Your task to perform on an android device: turn off priority inbox in the gmail app Image 0: 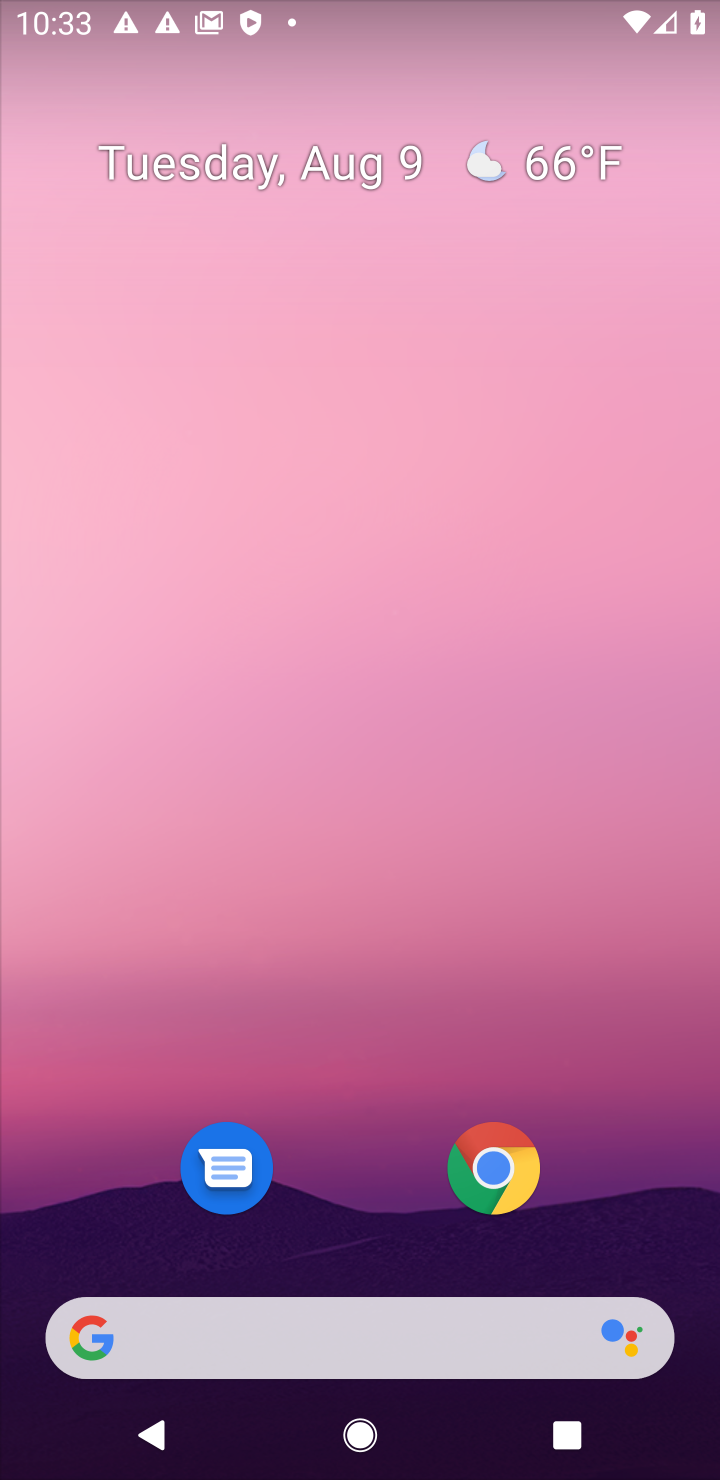
Step 0: drag from (332, 1182) to (366, 44)
Your task to perform on an android device: turn off priority inbox in the gmail app Image 1: 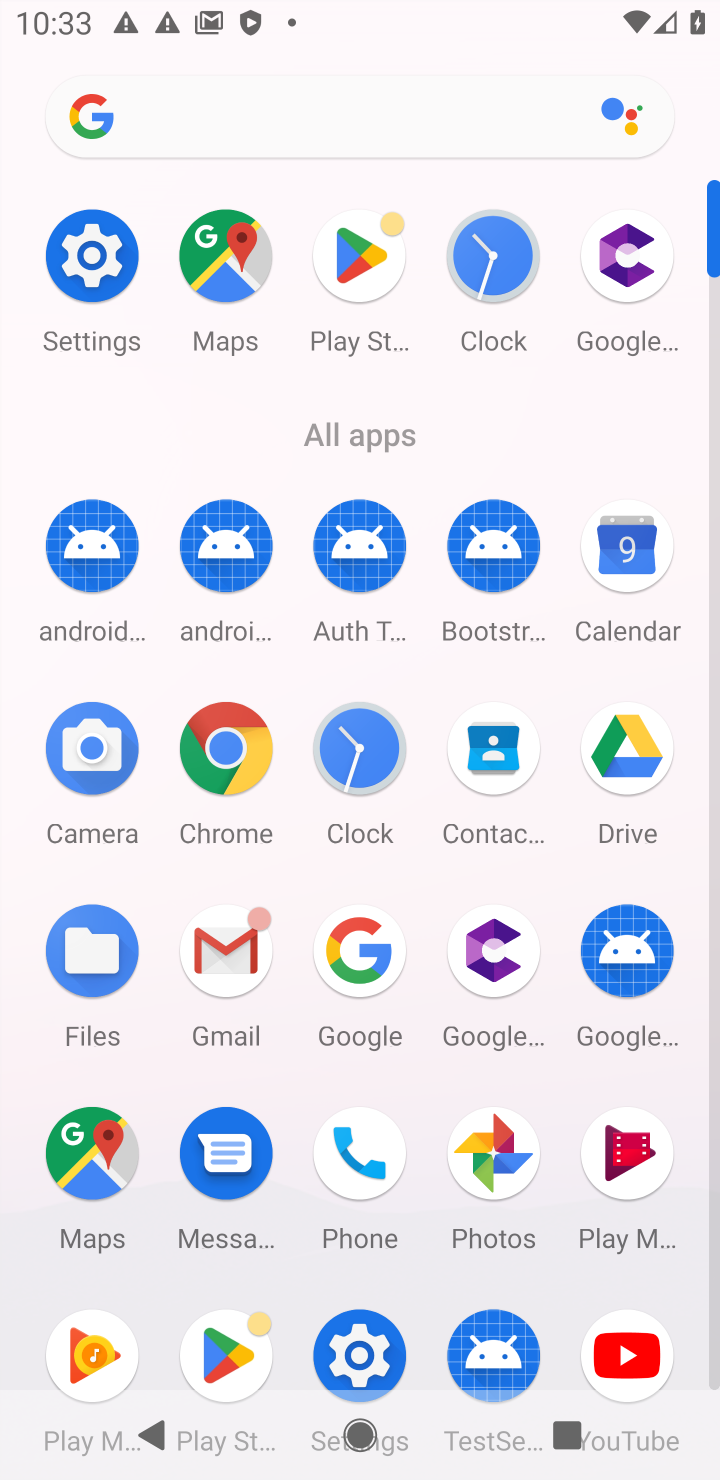
Step 1: click (236, 963)
Your task to perform on an android device: turn off priority inbox in the gmail app Image 2: 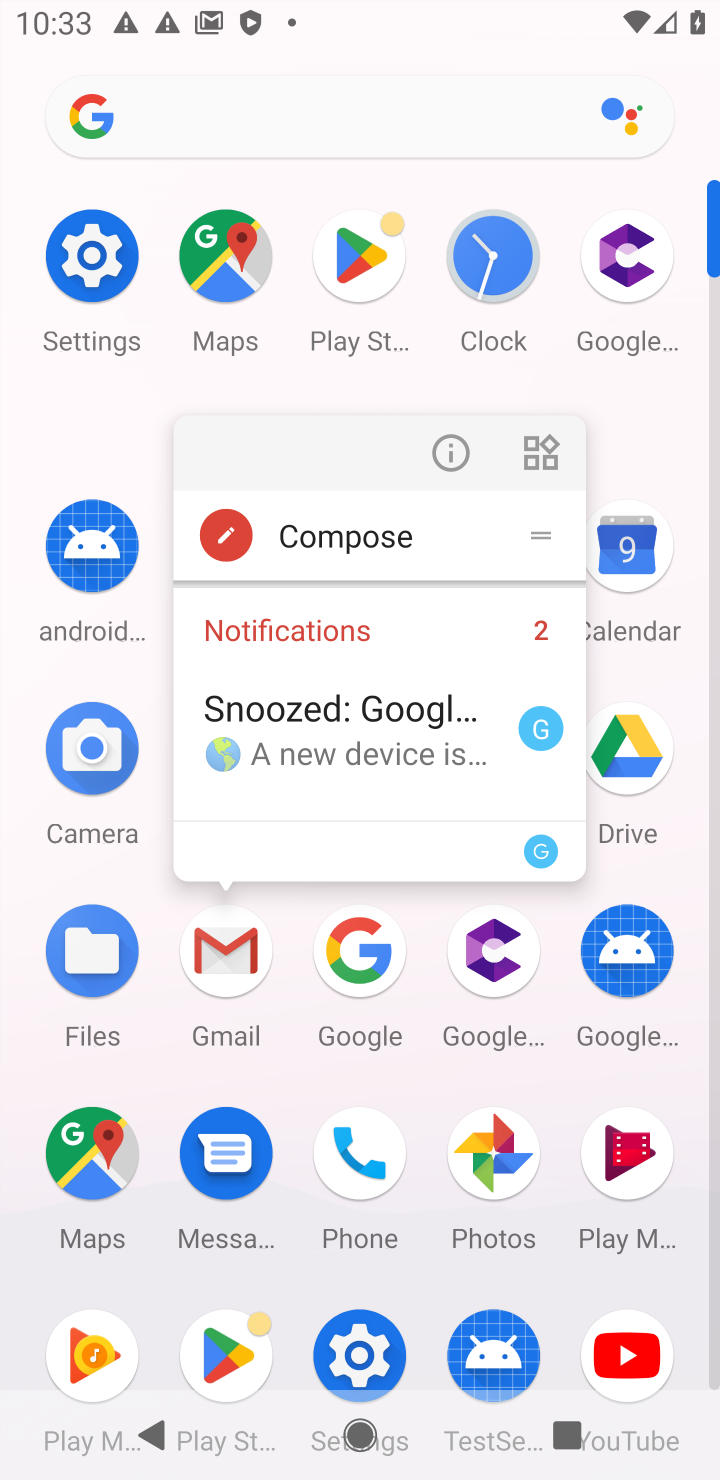
Step 2: click (236, 963)
Your task to perform on an android device: turn off priority inbox in the gmail app Image 3: 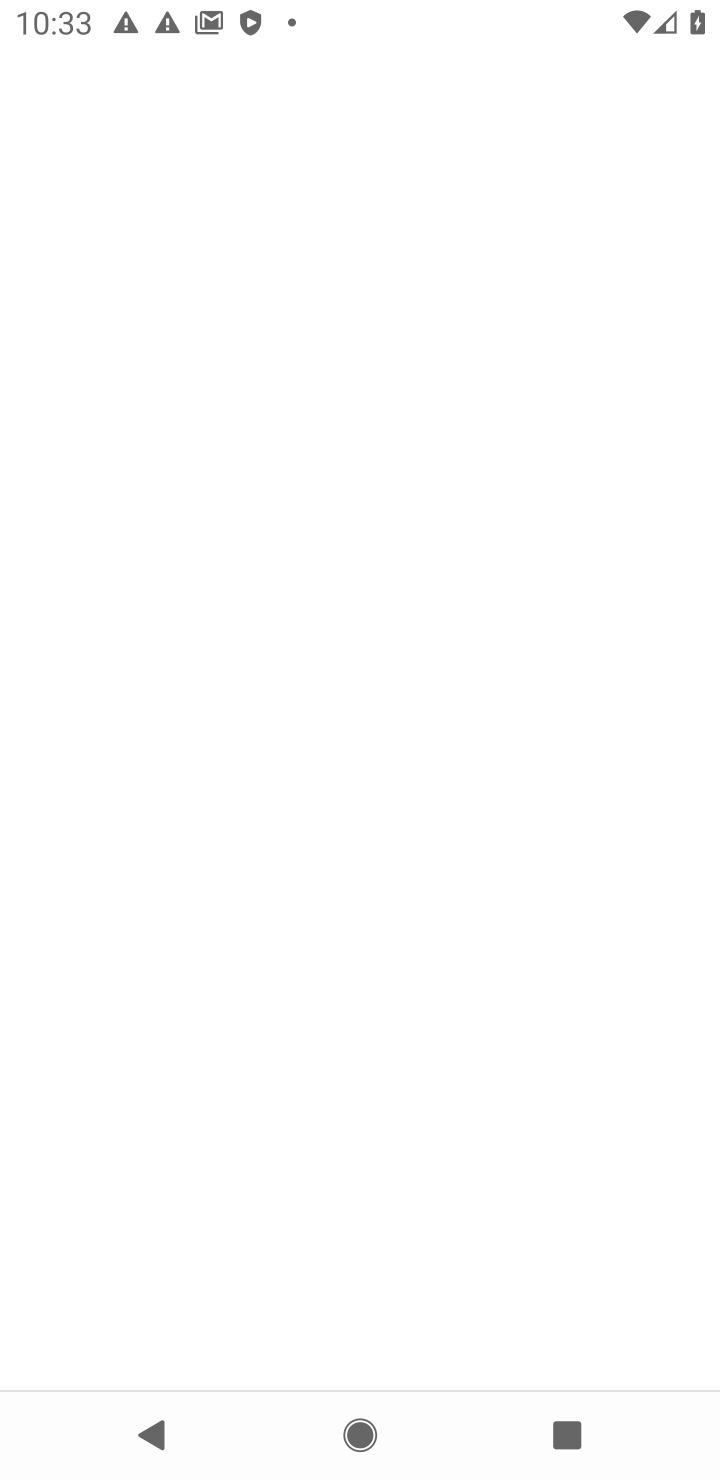
Step 3: click (213, 943)
Your task to perform on an android device: turn off priority inbox in the gmail app Image 4: 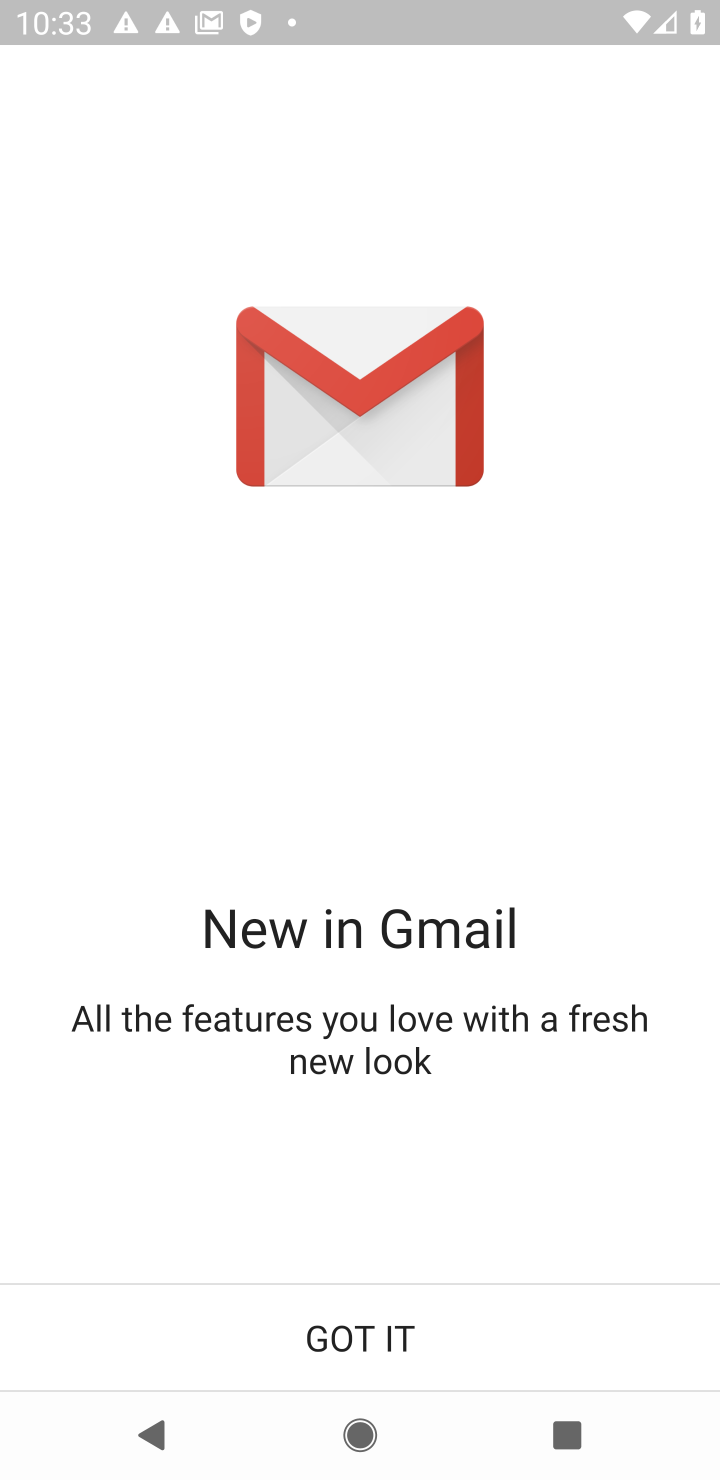
Step 4: click (373, 1337)
Your task to perform on an android device: turn off priority inbox in the gmail app Image 5: 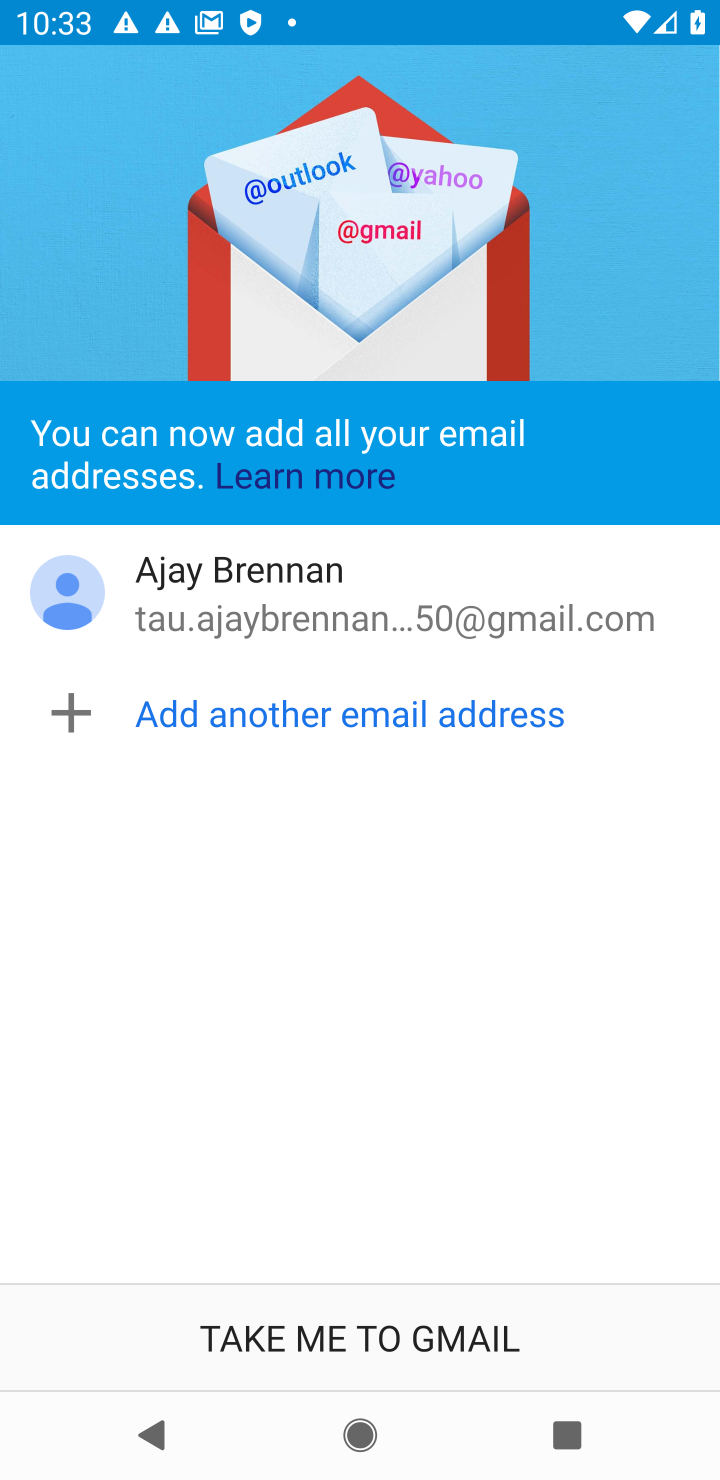
Step 5: click (409, 1320)
Your task to perform on an android device: turn off priority inbox in the gmail app Image 6: 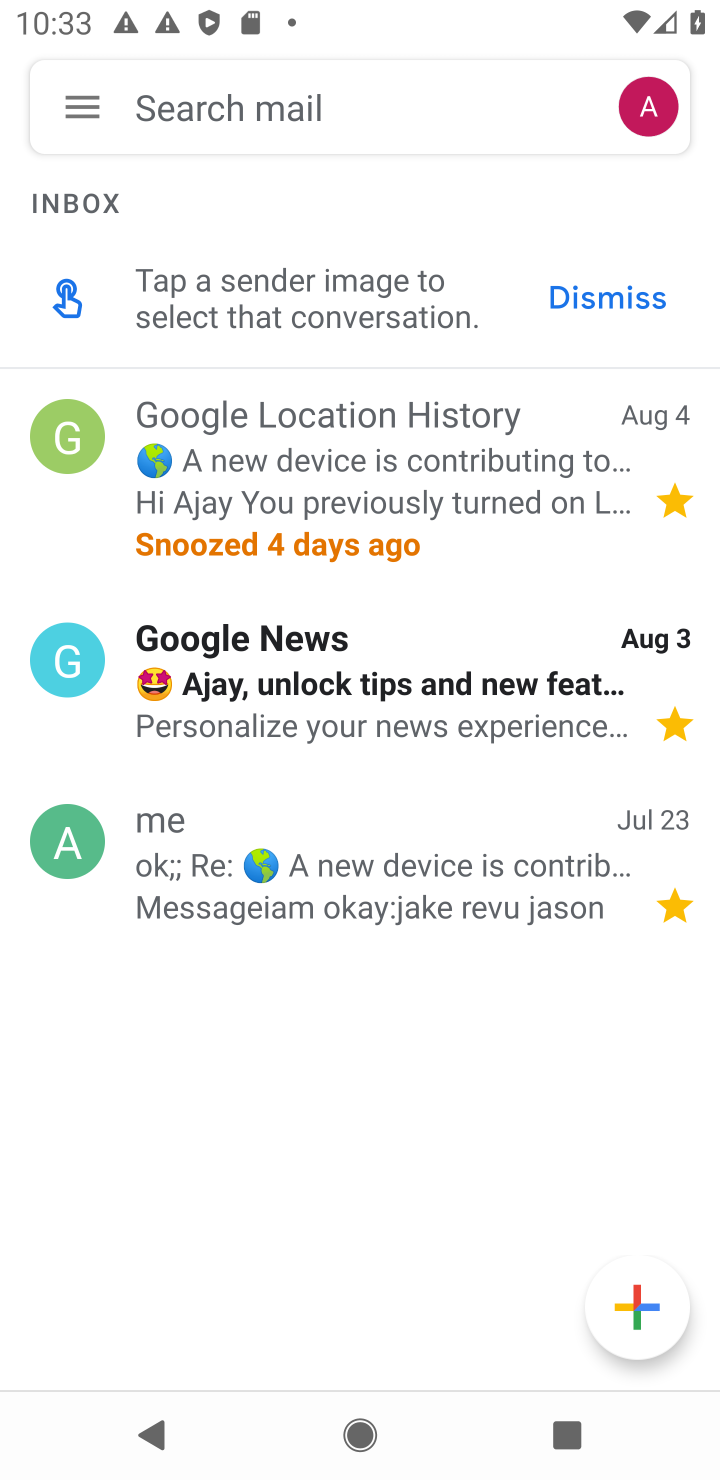
Step 6: click (86, 101)
Your task to perform on an android device: turn off priority inbox in the gmail app Image 7: 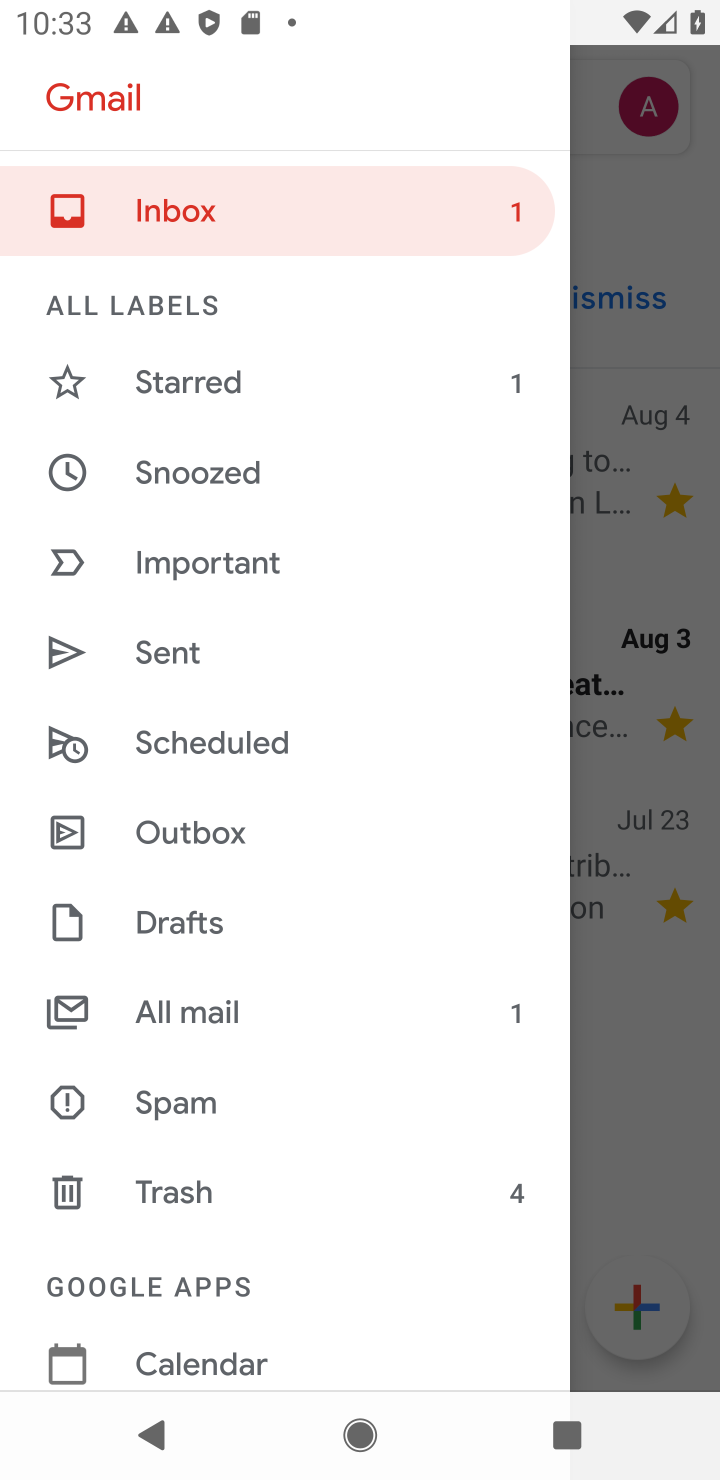
Step 7: drag from (325, 1283) to (275, 405)
Your task to perform on an android device: turn off priority inbox in the gmail app Image 8: 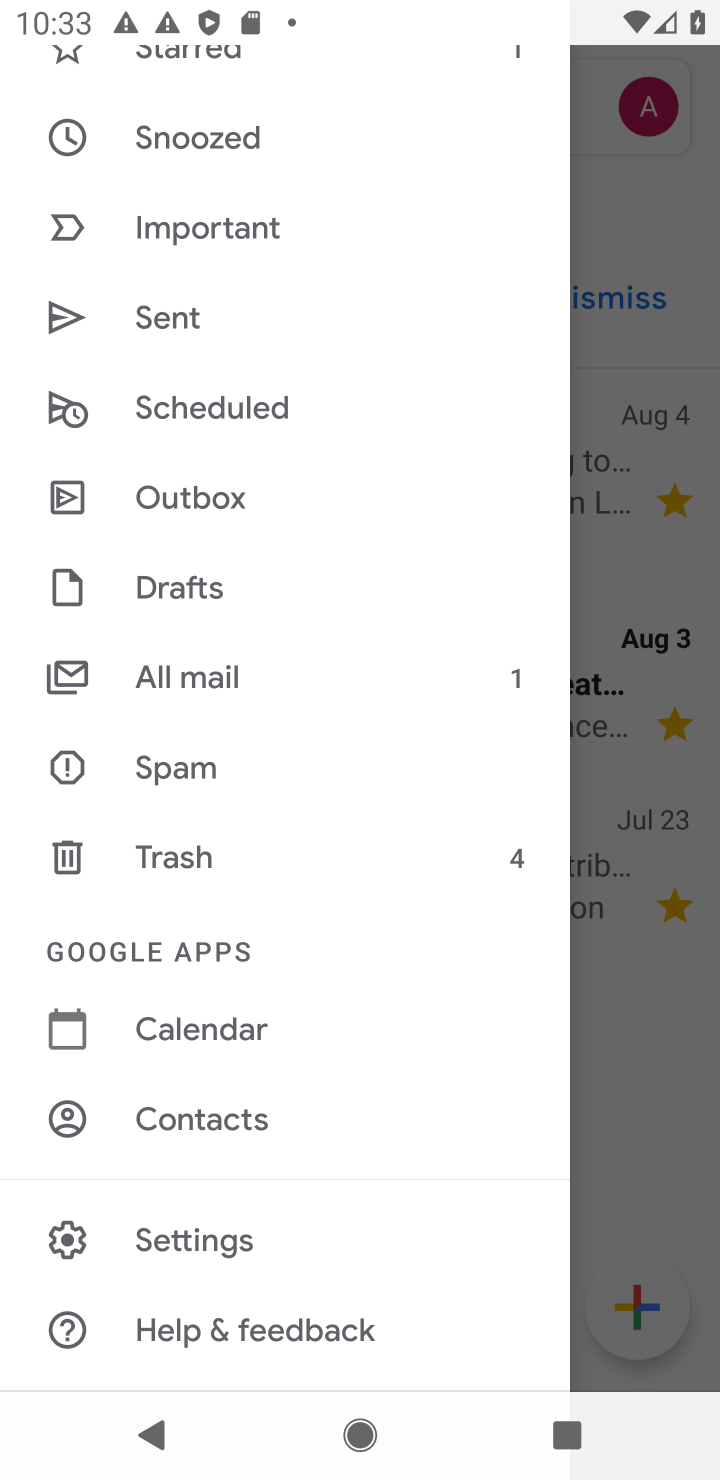
Step 8: click (271, 1235)
Your task to perform on an android device: turn off priority inbox in the gmail app Image 9: 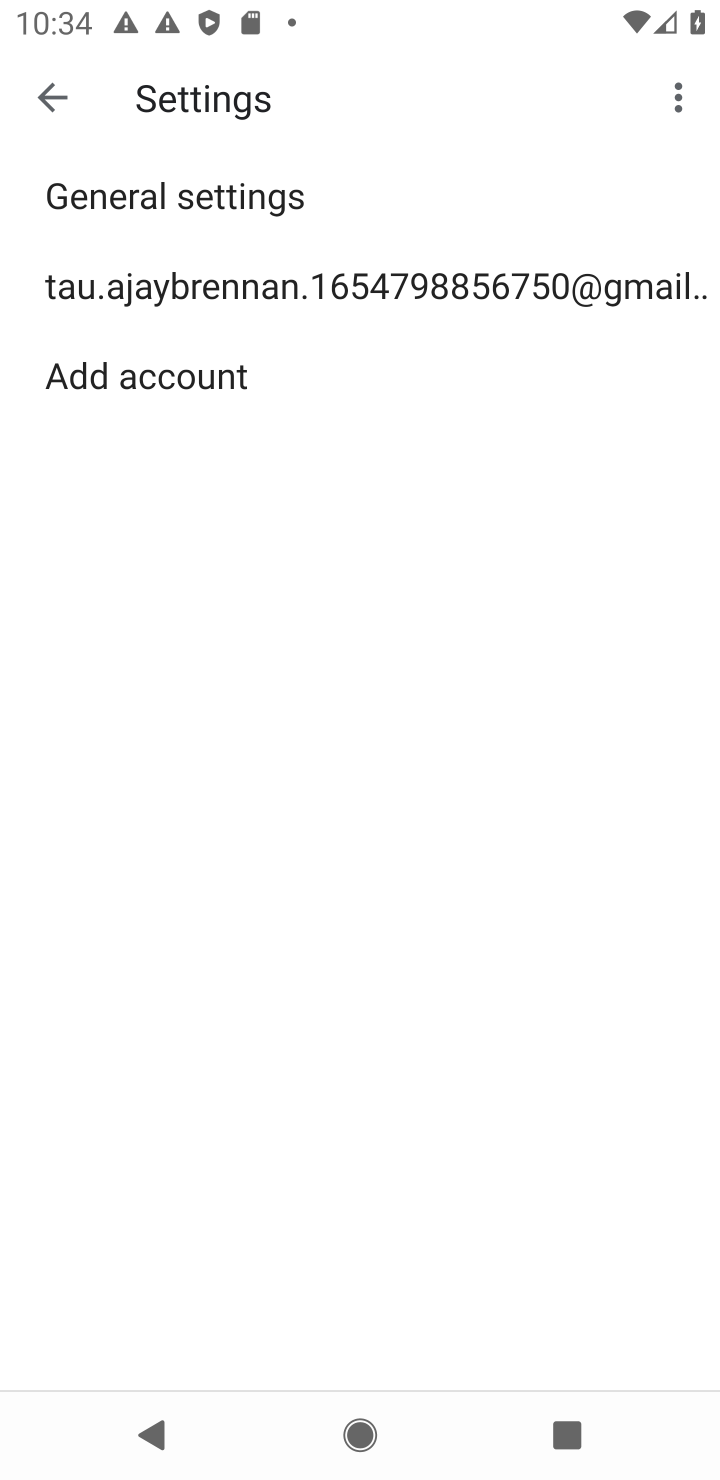
Step 9: click (348, 270)
Your task to perform on an android device: turn off priority inbox in the gmail app Image 10: 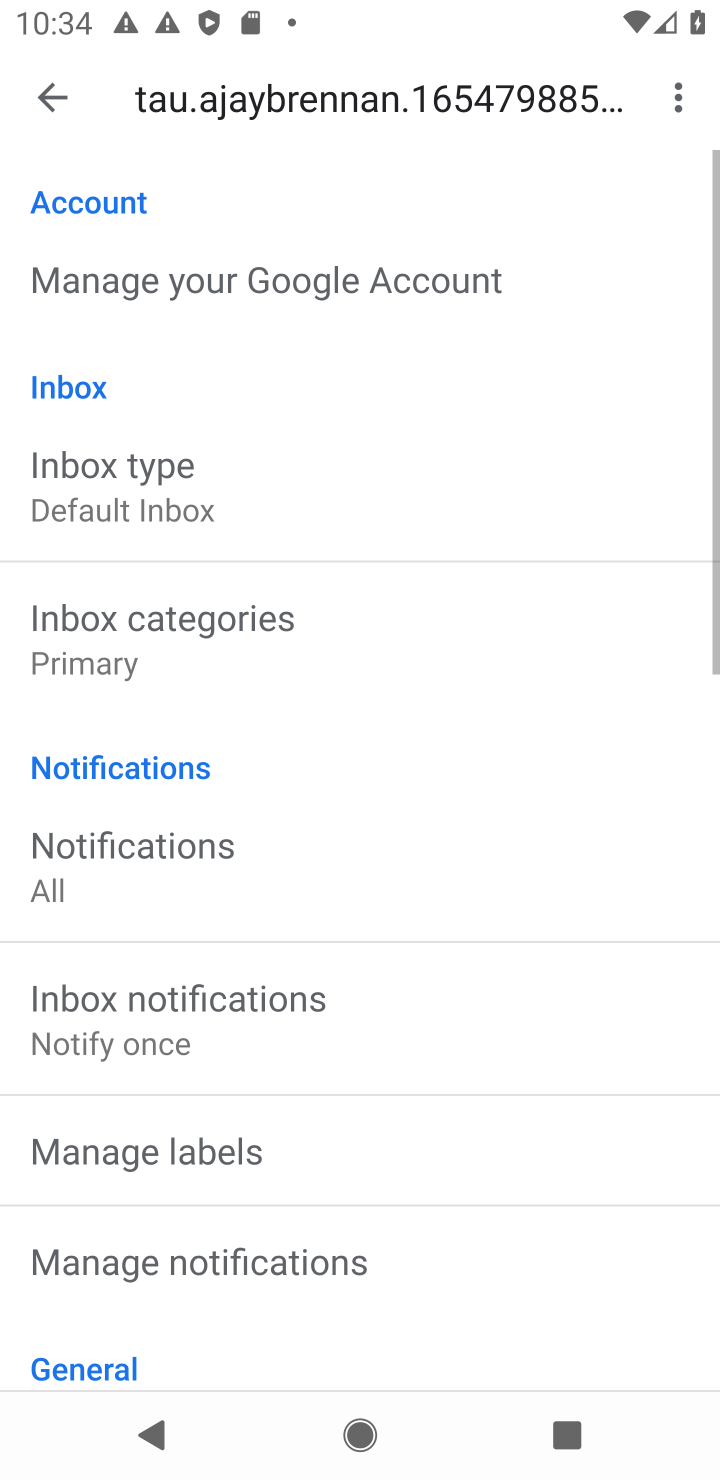
Step 10: drag from (470, 952) to (421, 400)
Your task to perform on an android device: turn off priority inbox in the gmail app Image 11: 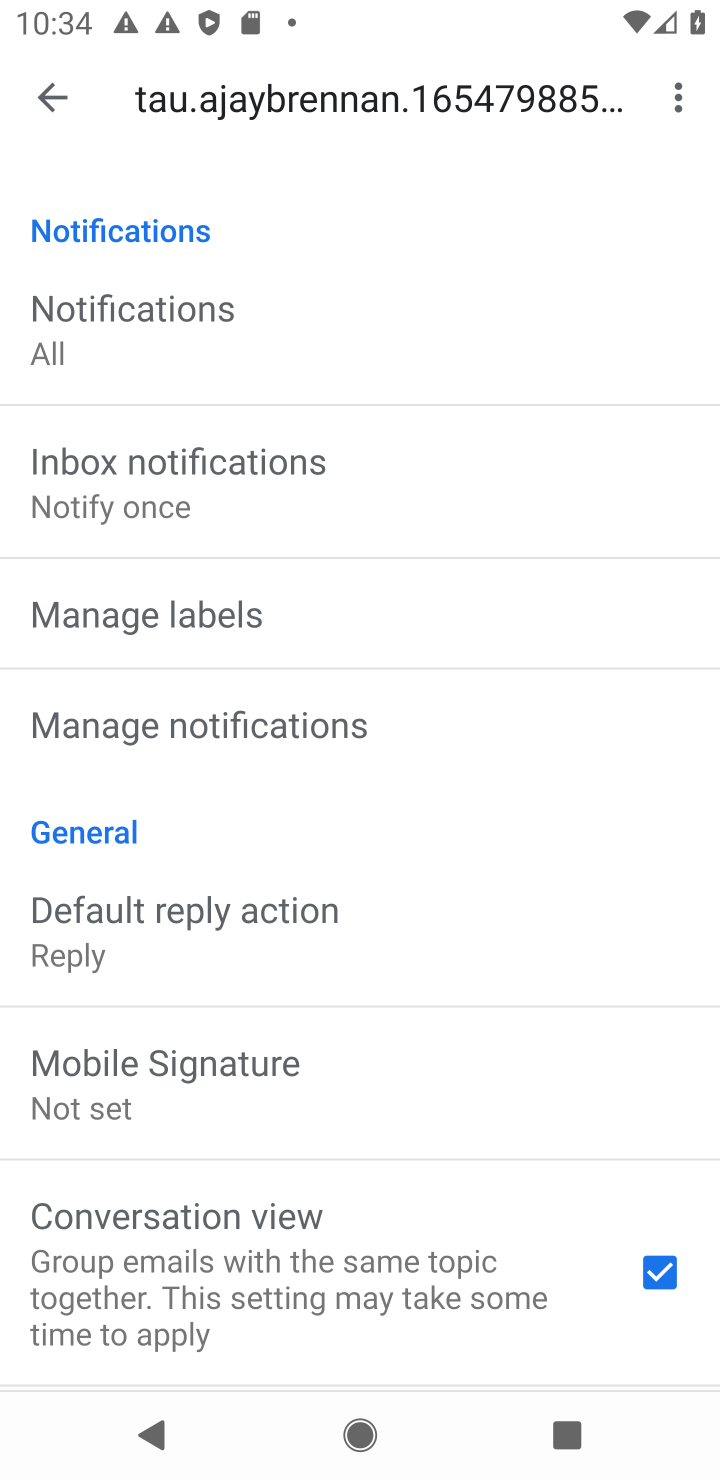
Step 11: drag from (421, 400) to (580, 1339)
Your task to perform on an android device: turn off priority inbox in the gmail app Image 12: 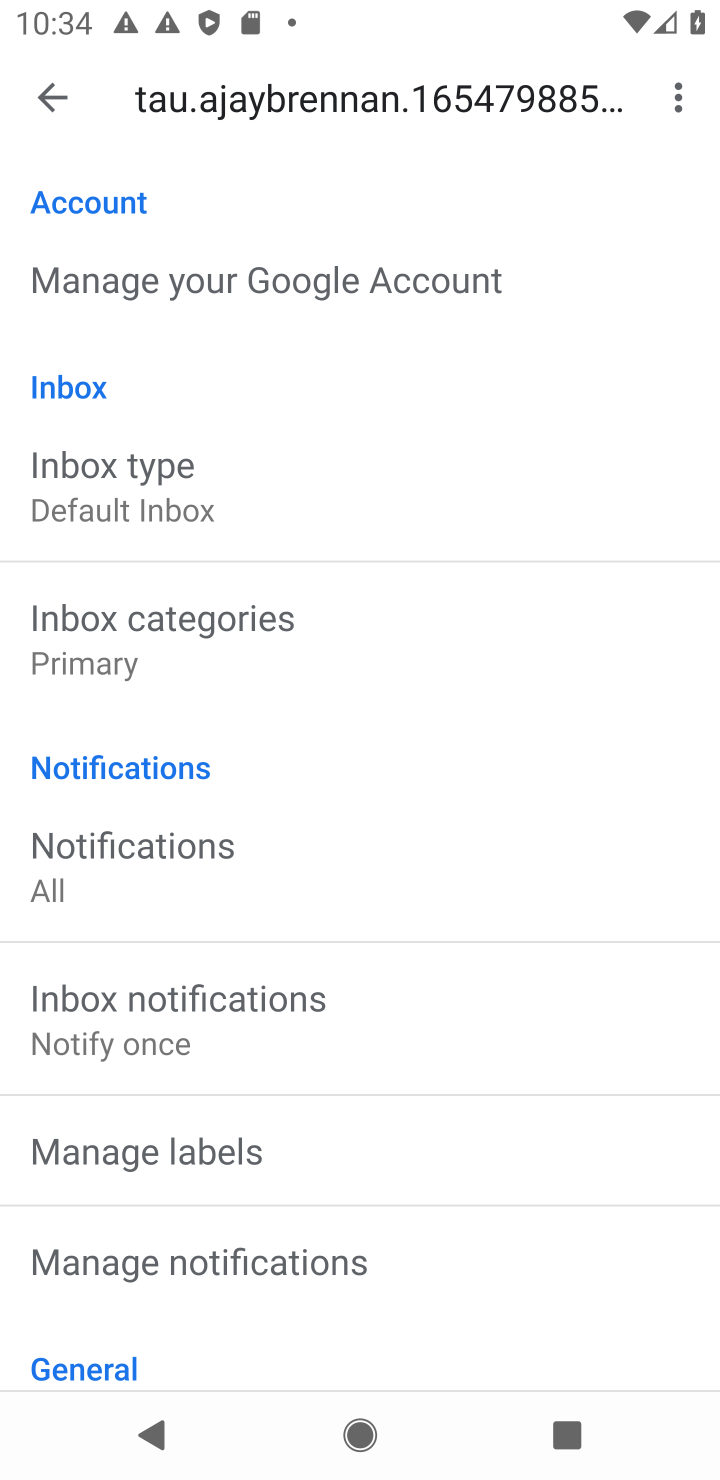
Step 12: click (185, 483)
Your task to perform on an android device: turn off priority inbox in the gmail app Image 13: 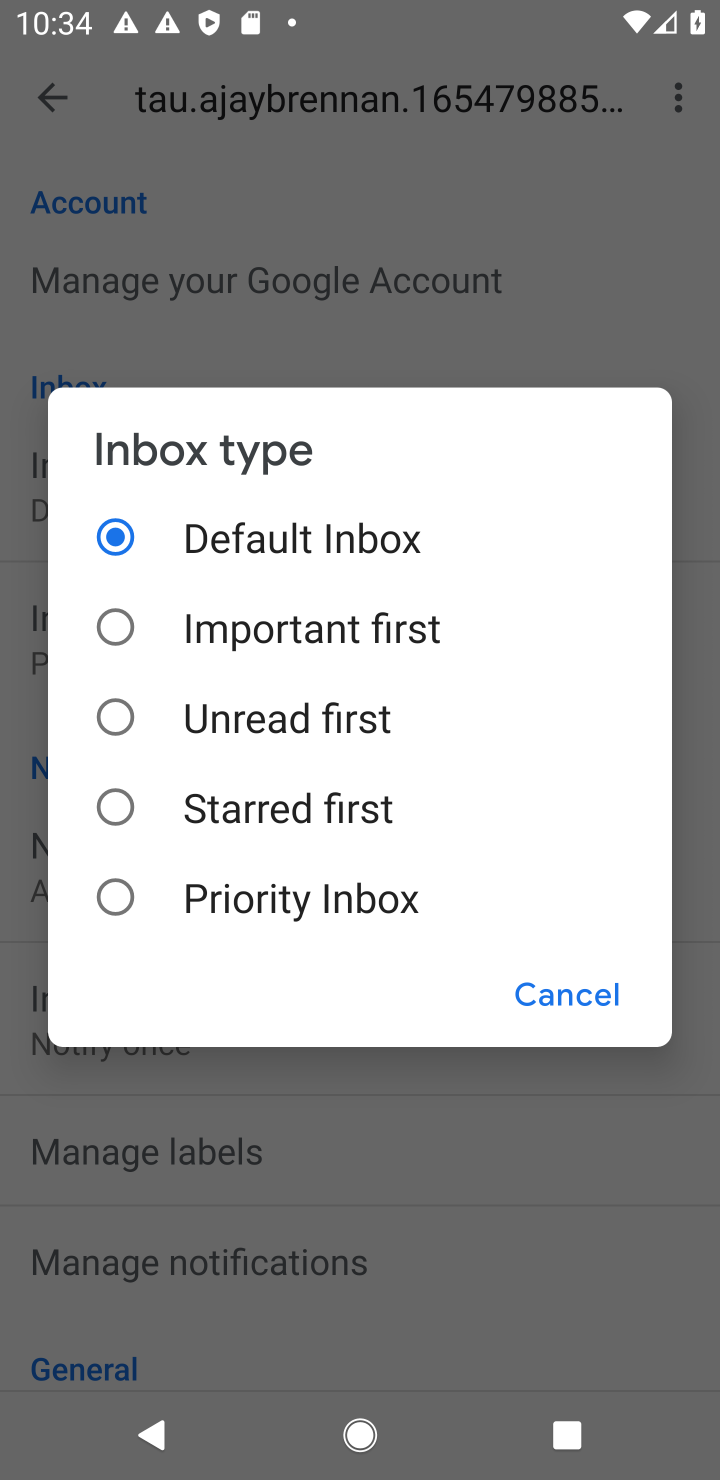
Step 13: task complete